Your task to perform on an android device: Show me productivity apps on the Play Store Image 0: 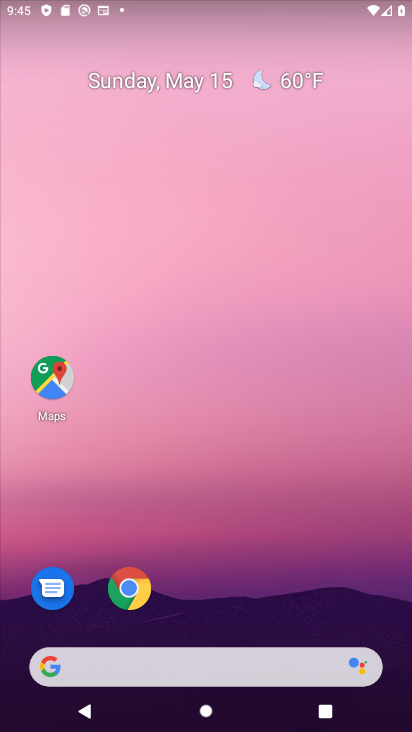
Step 0: drag from (236, 617) to (247, 229)
Your task to perform on an android device: Show me productivity apps on the Play Store Image 1: 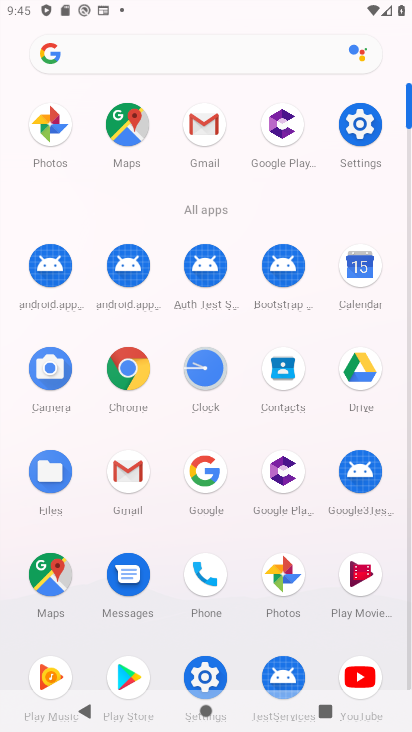
Step 1: click (132, 678)
Your task to perform on an android device: Show me productivity apps on the Play Store Image 2: 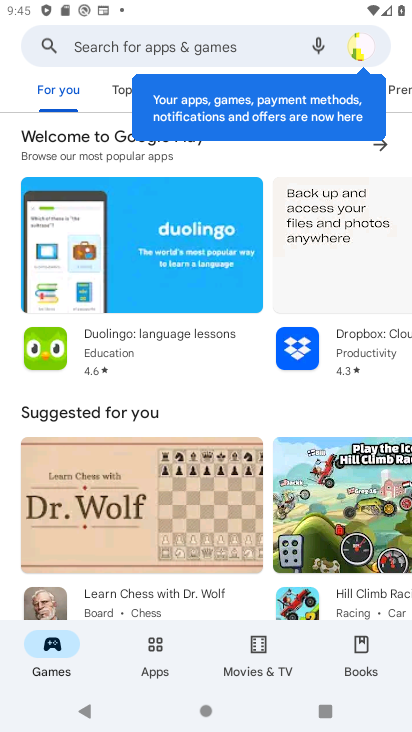
Step 2: drag from (239, 409) to (200, 621)
Your task to perform on an android device: Show me productivity apps on the Play Store Image 3: 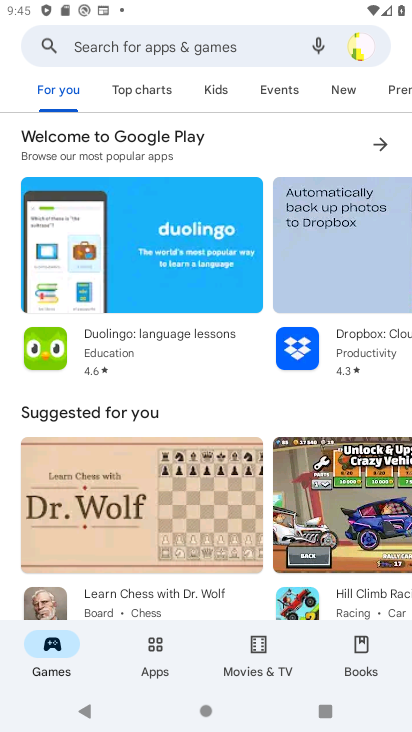
Step 3: drag from (390, 85) to (271, 67)
Your task to perform on an android device: Show me productivity apps on the Play Store Image 4: 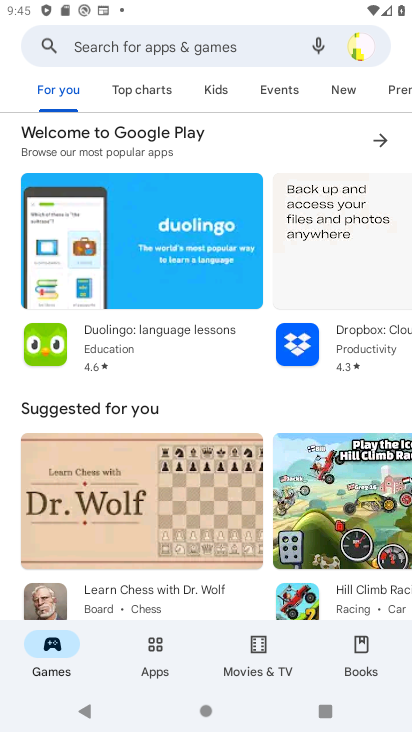
Step 4: click (143, 646)
Your task to perform on an android device: Show me productivity apps on the Play Store Image 5: 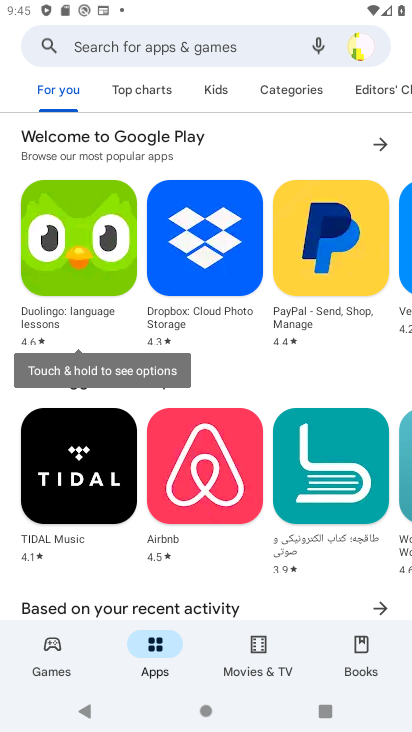
Step 5: click (300, 101)
Your task to perform on an android device: Show me productivity apps on the Play Store Image 6: 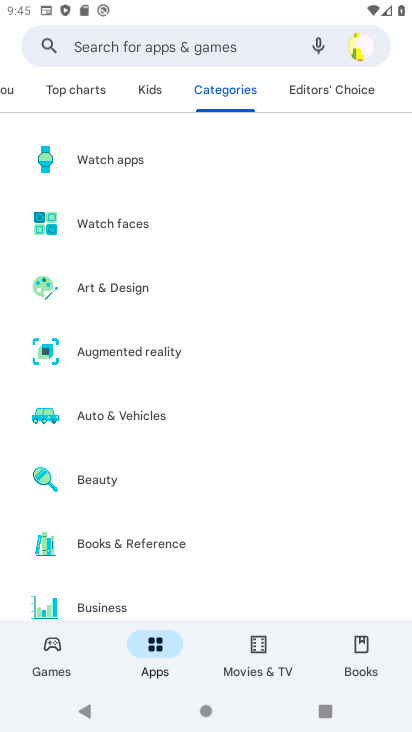
Step 6: drag from (233, 562) to (231, 159)
Your task to perform on an android device: Show me productivity apps on the Play Store Image 7: 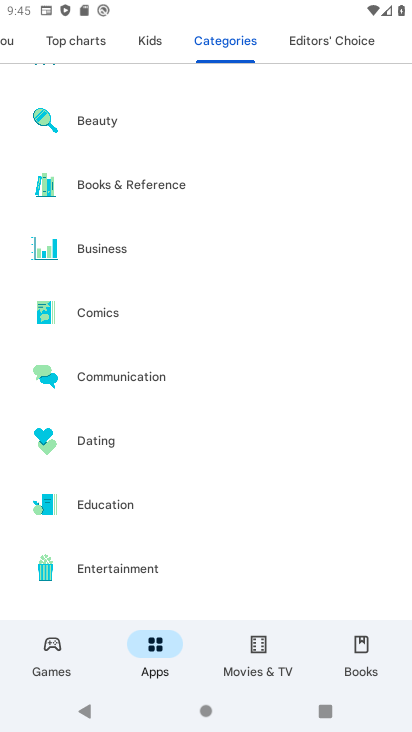
Step 7: drag from (191, 562) to (149, 193)
Your task to perform on an android device: Show me productivity apps on the Play Store Image 8: 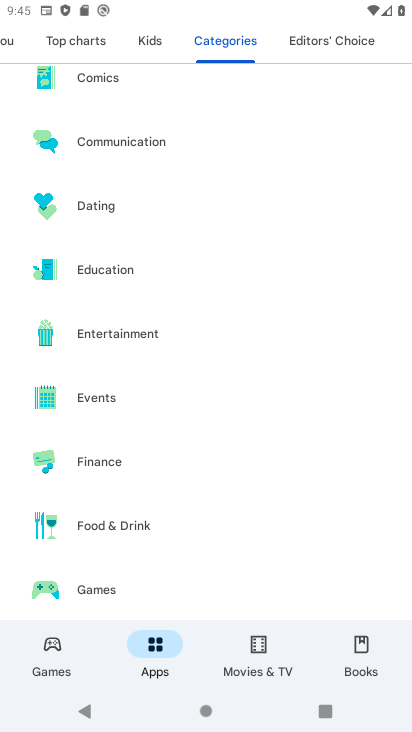
Step 8: drag from (100, 566) to (110, 204)
Your task to perform on an android device: Show me productivity apps on the Play Store Image 9: 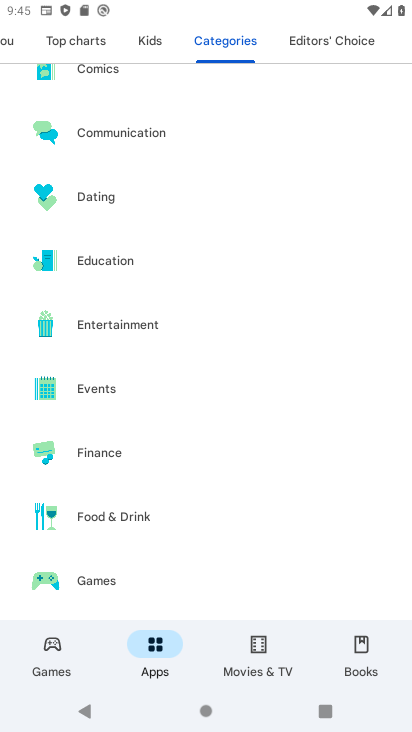
Step 9: drag from (206, 554) to (165, 216)
Your task to perform on an android device: Show me productivity apps on the Play Store Image 10: 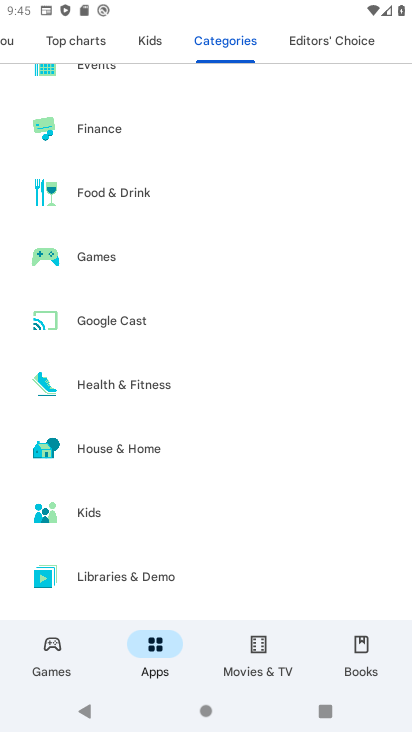
Step 10: drag from (268, 566) to (224, 168)
Your task to perform on an android device: Show me productivity apps on the Play Store Image 11: 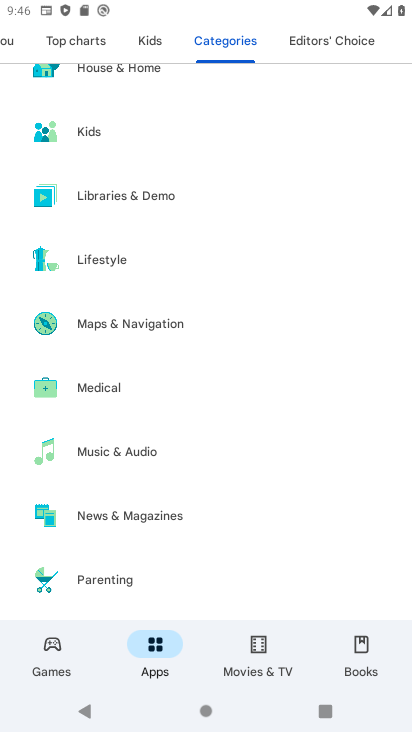
Step 11: drag from (302, 519) to (224, 184)
Your task to perform on an android device: Show me productivity apps on the Play Store Image 12: 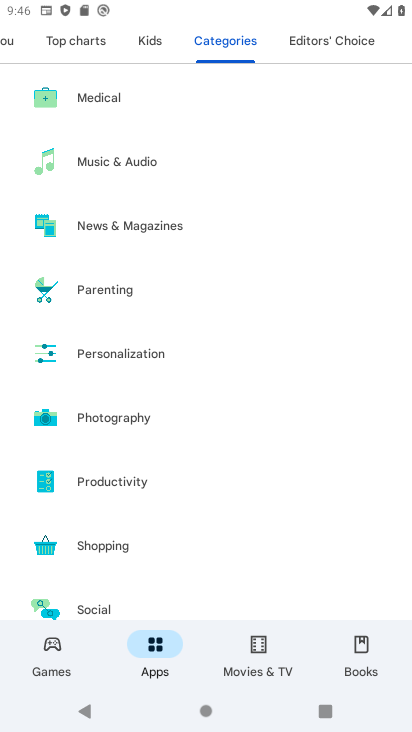
Step 12: click (157, 486)
Your task to perform on an android device: Show me productivity apps on the Play Store Image 13: 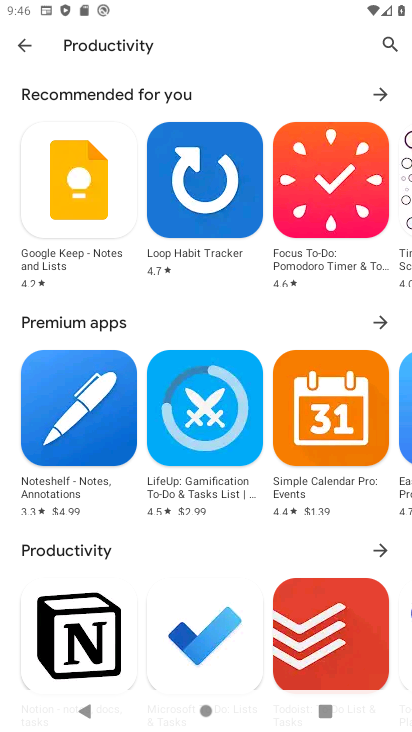
Step 13: task complete